Your task to perform on an android device: toggle improve location accuracy Image 0: 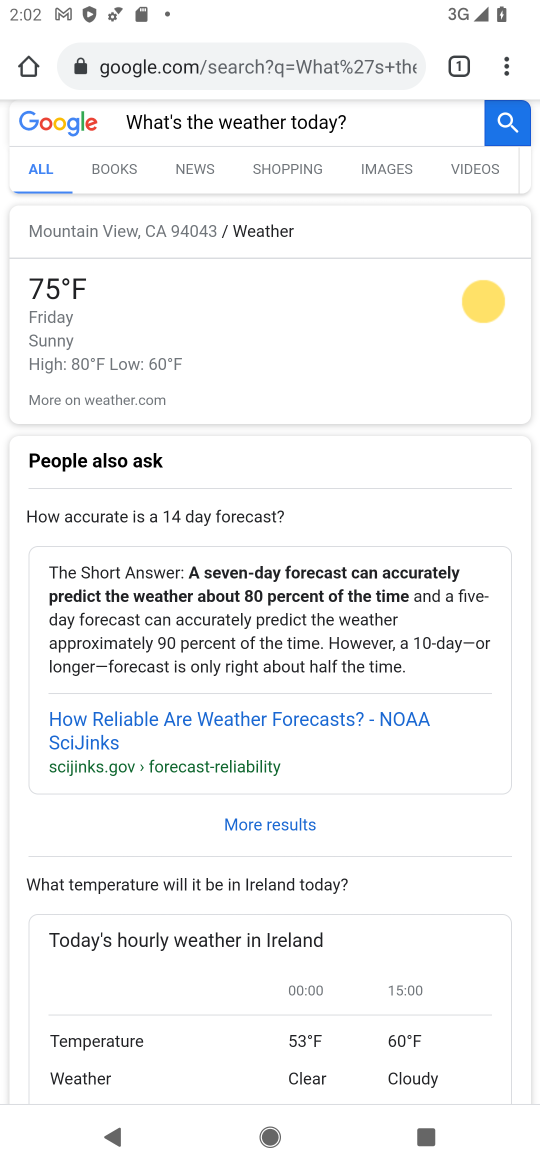
Step 0: press home button
Your task to perform on an android device: toggle improve location accuracy Image 1: 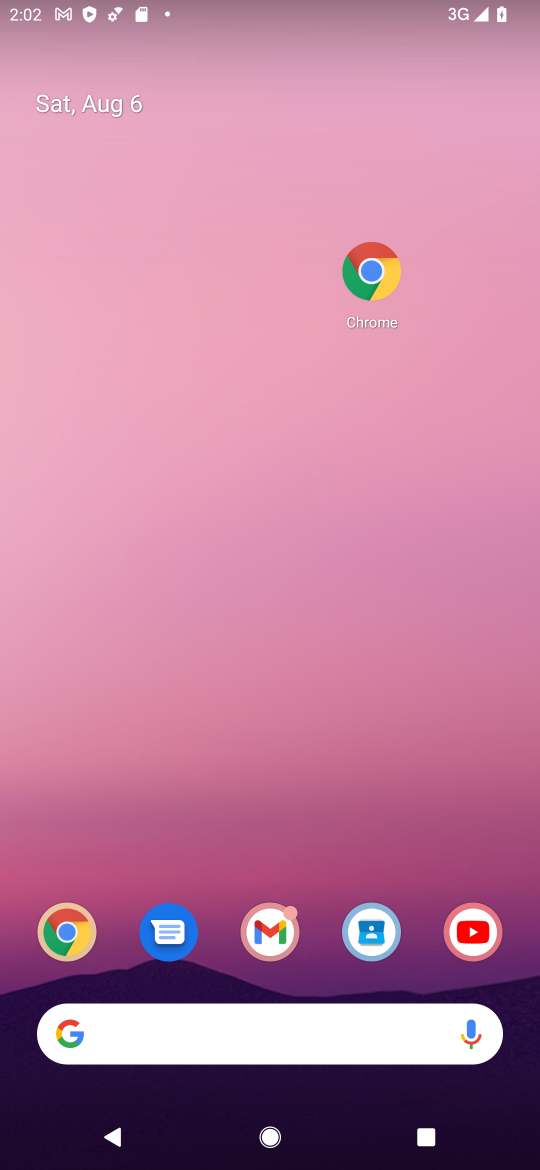
Step 1: drag from (321, 951) to (426, 117)
Your task to perform on an android device: toggle improve location accuracy Image 2: 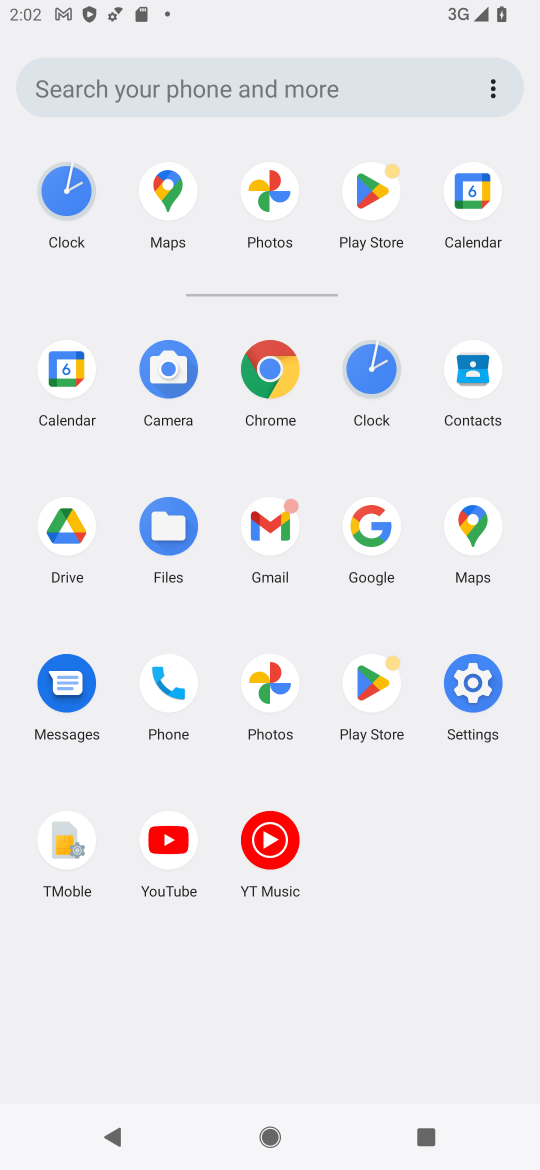
Step 2: click (484, 679)
Your task to perform on an android device: toggle improve location accuracy Image 3: 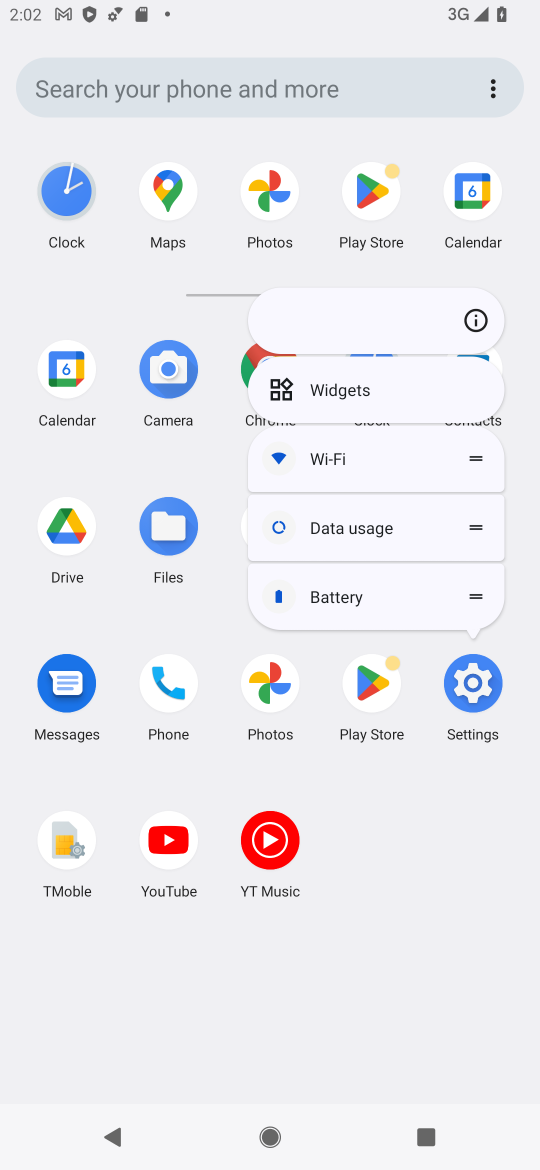
Step 3: click (464, 674)
Your task to perform on an android device: toggle improve location accuracy Image 4: 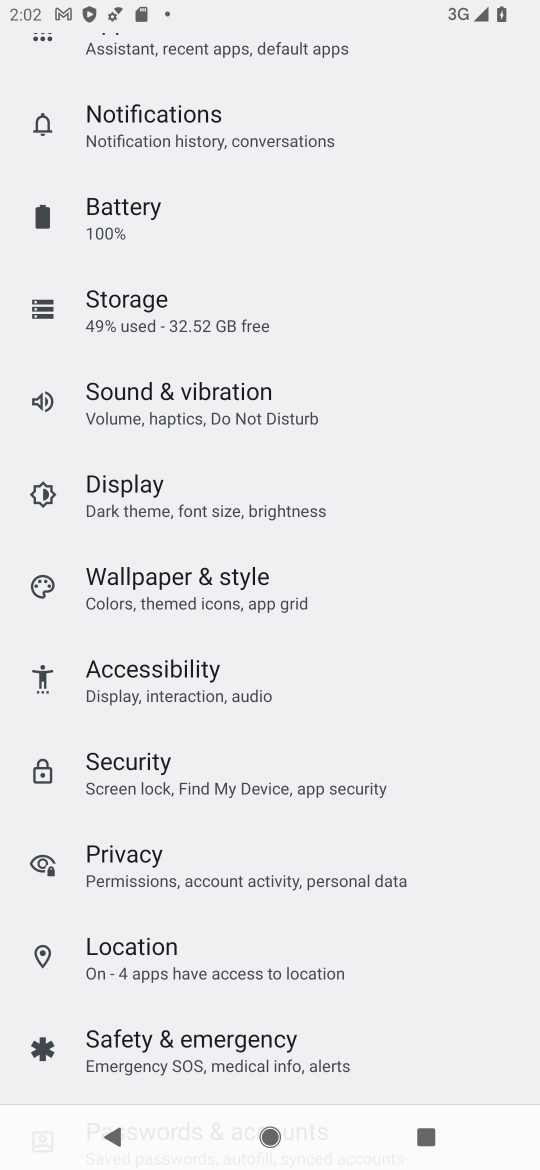
Step 4: drag from (361, 956) to (420, 517)
Your task to perform on an android device: toggle improve location accuracy Image 5: 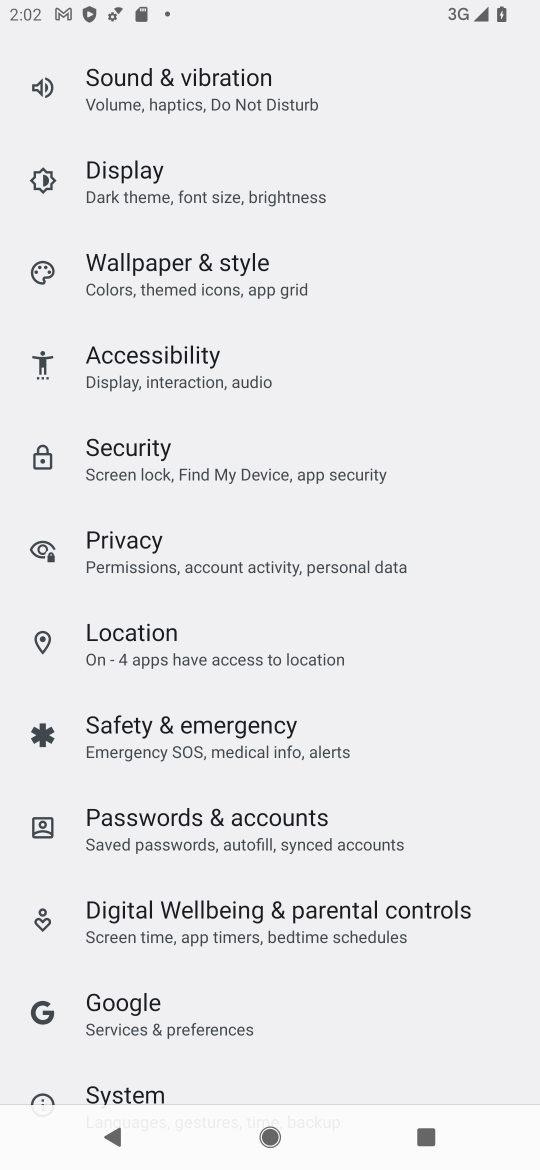
Step 5: click (197, 632)
Your task to perform on an android device: toggle improve location accuracy Image 6: 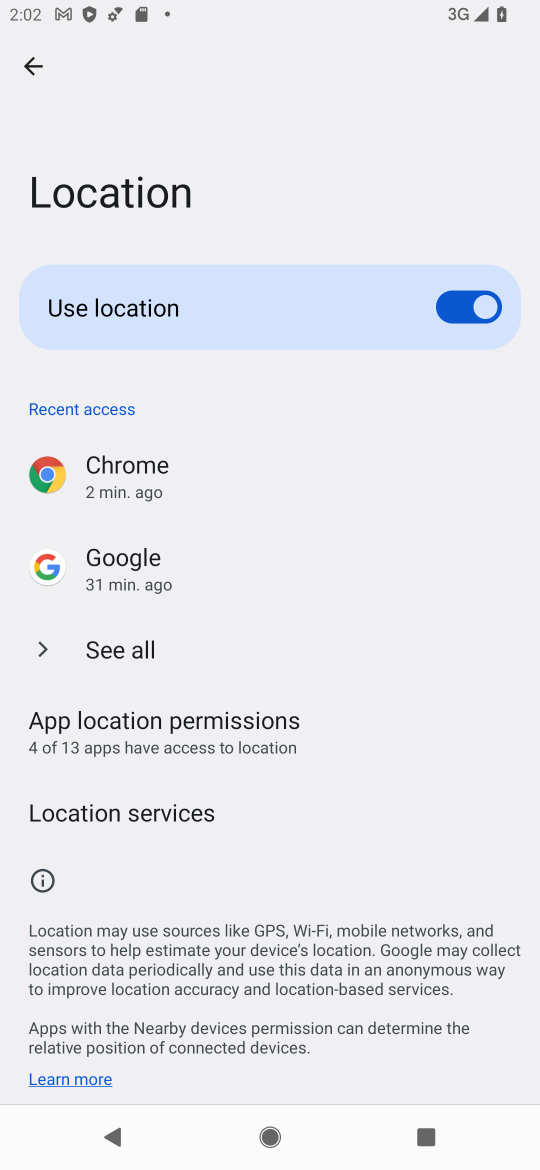
Step 6: click (58, 813)
Your task to perform on an android device: toggle improve location accuracy Image 7: 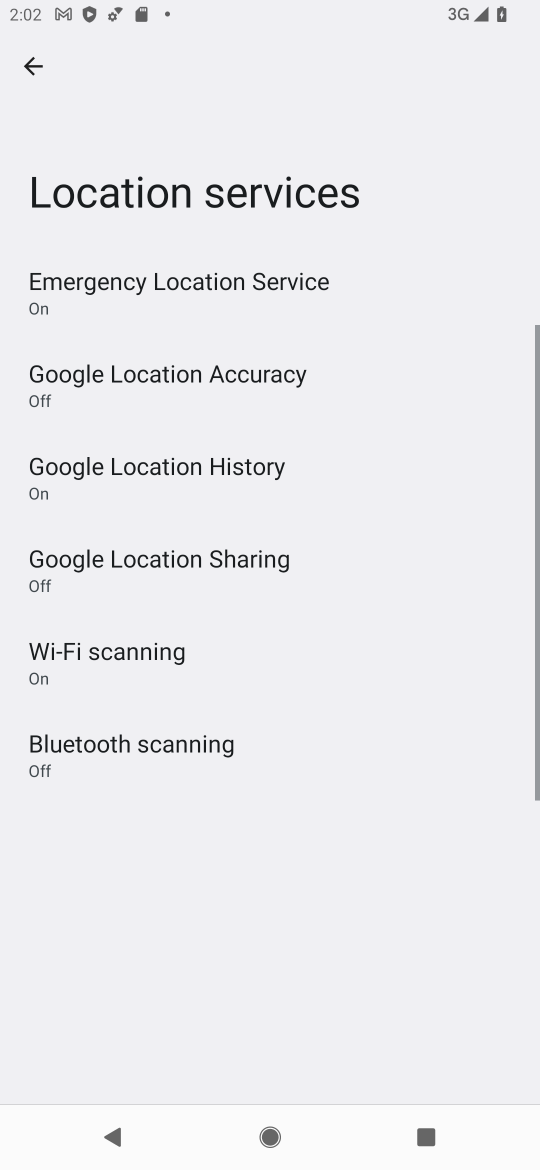
Step 7: click (245, 363)
Your task to perform on an android device: toggle improve location accuracy Image 8: 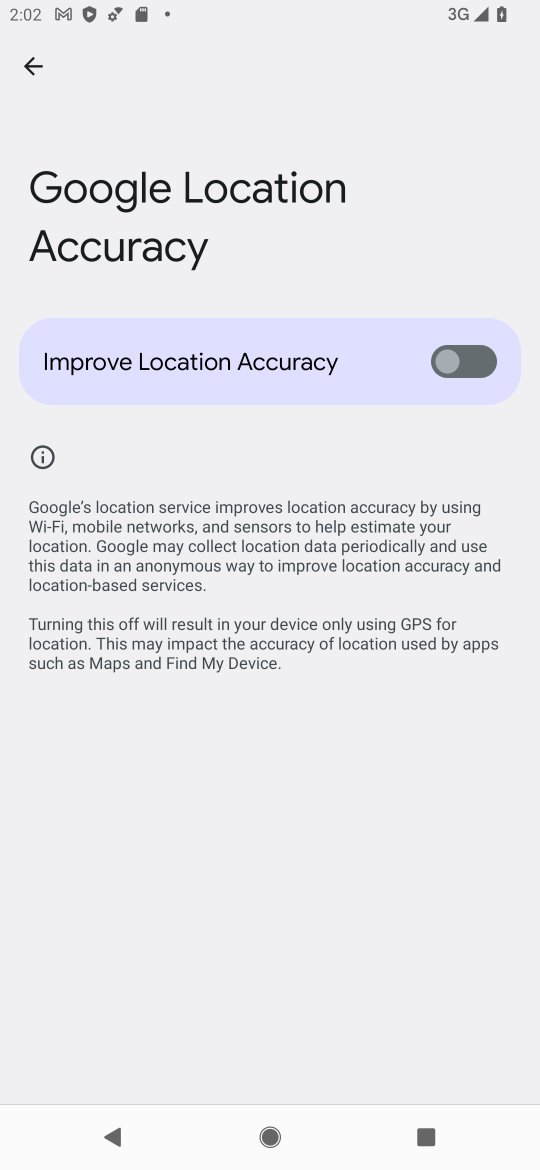
Step 8: click (268, 369)
Your task to perform on an android device: toggle improve location accuracy Image 9: 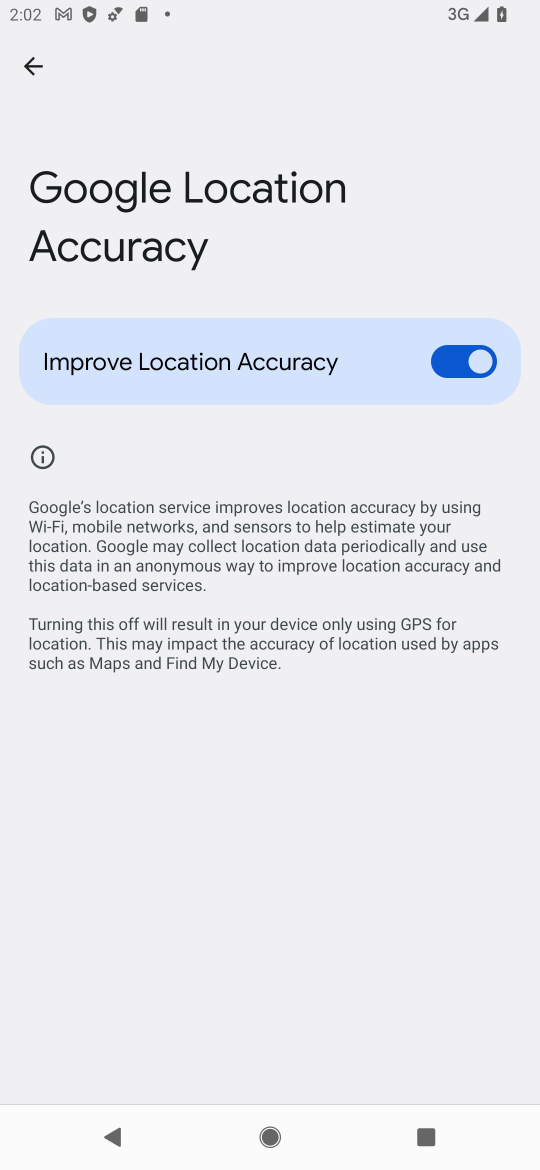
Step 9: task complete